Your task to perform on an android device: Open notification settings Image 0: 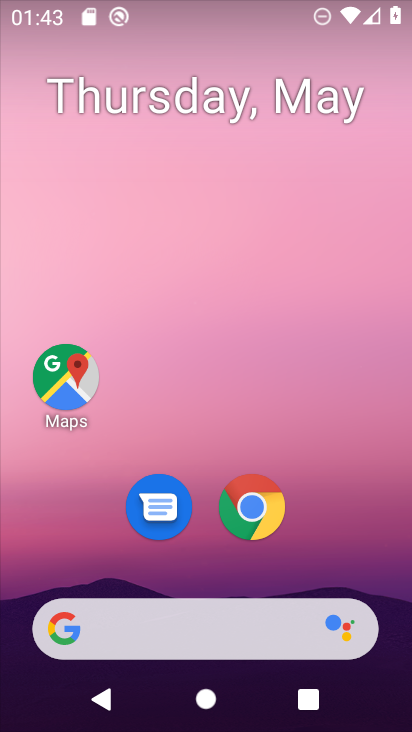
Step 0: drag from (388, 564) to (349, 205)
Your task to perform on an android device: Open notification settings Image 1: 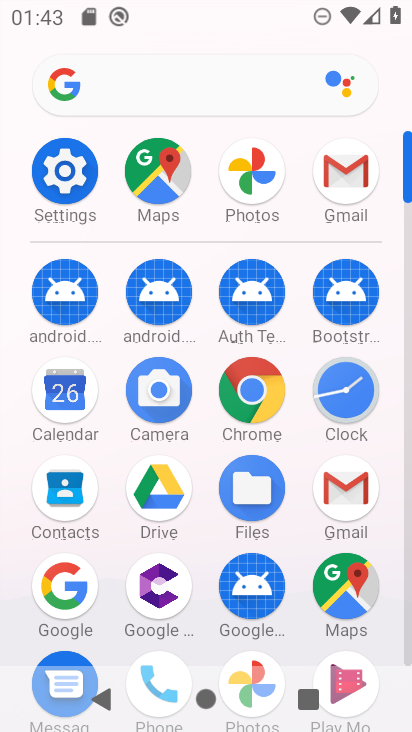
Step 1: click (70, 155)
Your task to perform on an android device: Open notification settings Image 2: 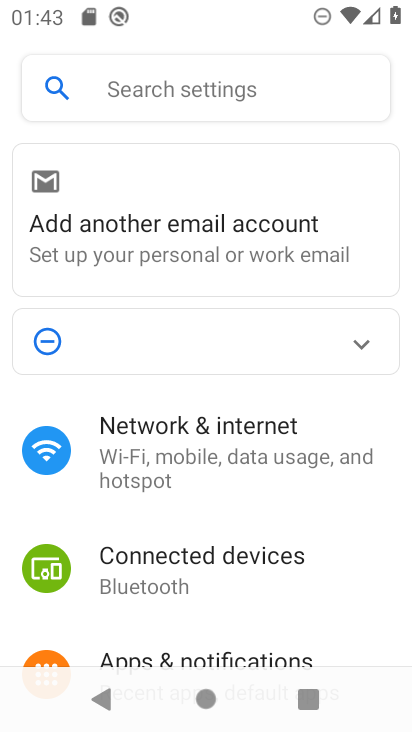
Step 2: click (240, 645)
Your task to perform on an android device: Open notification settings Image 3: 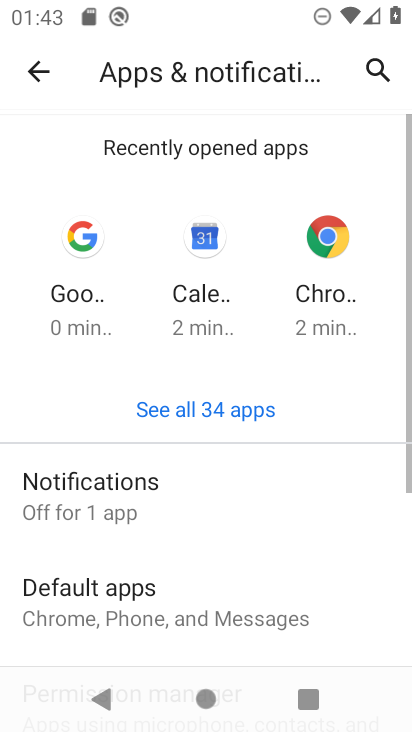
Step 3: task complete